Your task to perform on an android device: Go to display settings Image 0: 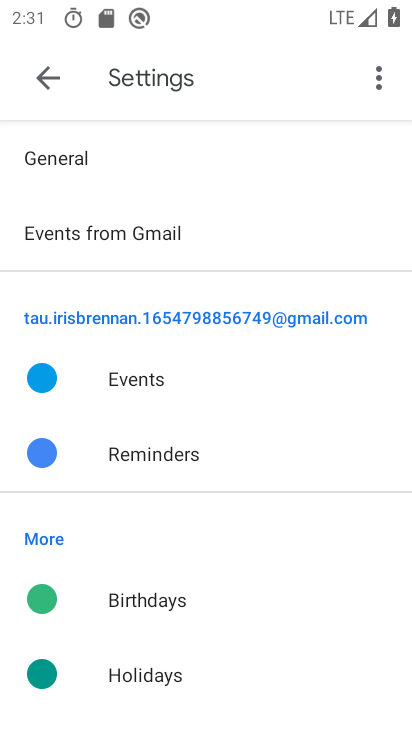
Step 0: press home button
Your task to perform on an android device: Go to display settings Image 1: 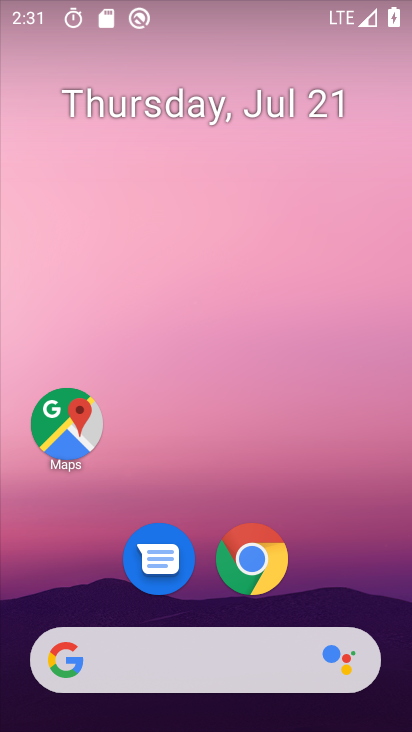
Step 1: drag from (356, 507) to (355, 120)
Your task to perform on an android device: Go to display settings Image 2: 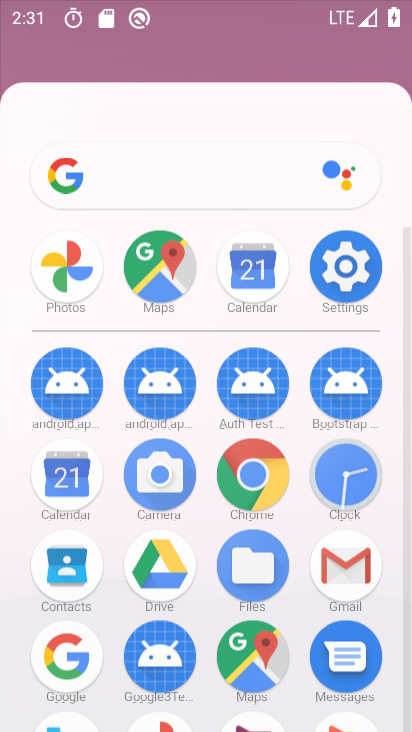
Step 2: drag from (334, 320) to (334, 91)
Your task to perform on an android device: Go to display settings Image 3: 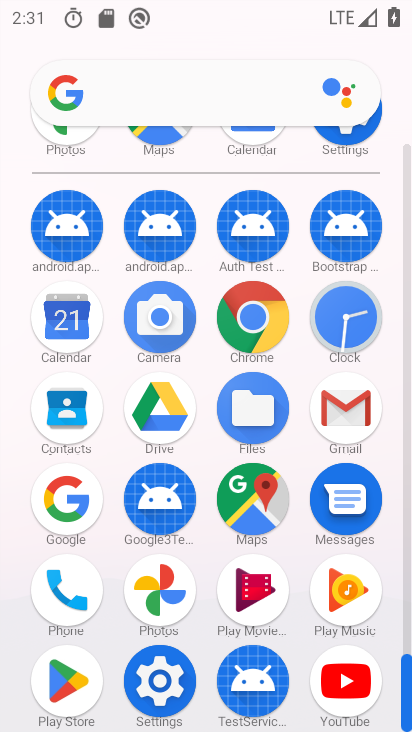
Step 3: click (163, 654)
Your task to perform on an android device: Go to display settings Image 4: 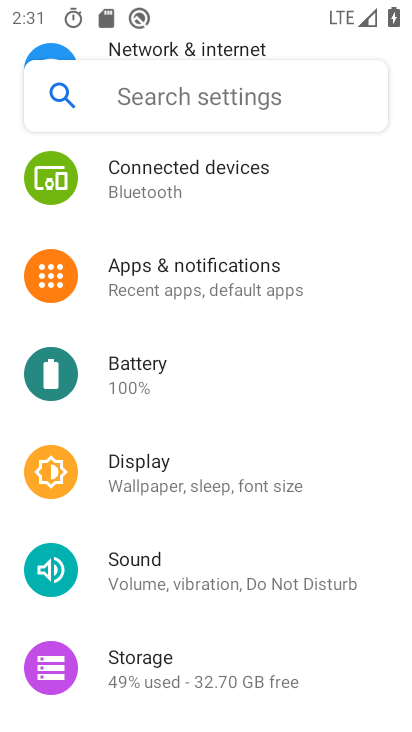
Step 4: drag from (346, 461) to (347, 368)
Your task to perform on an android device: Go to display settings Image 5: 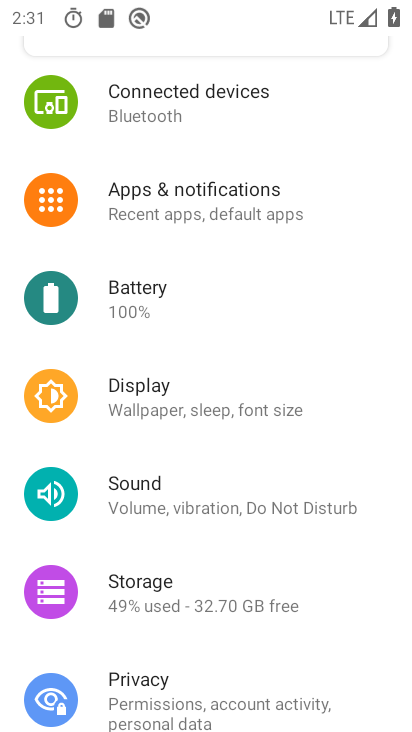
Step 5: drag from (346, 459) to (345, 349)
Your task to perform on an android device: Go to display settings Image 6: 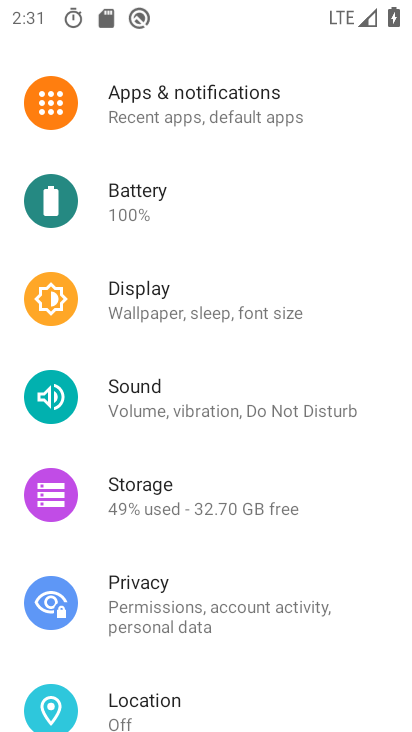
Step 6: drag from (334, 518) to (334, 391)
Your task to perform on an android device: Go to display settings Image 7: 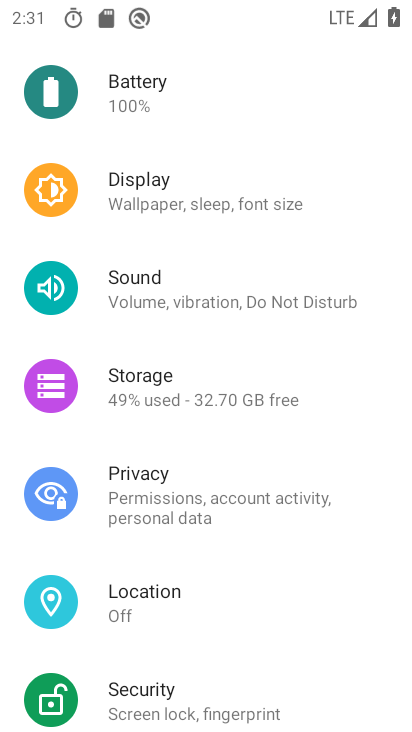
Step 7: drag from (343, 521) to (345, 373)
Your task to perform on an android device: Go to display settings Image 8: 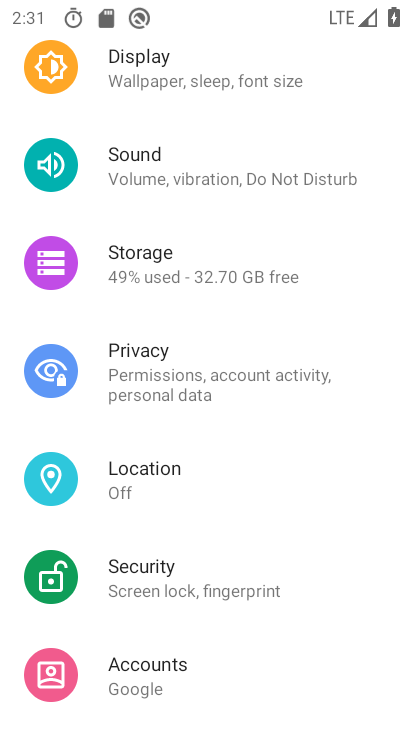
Step 8: drag from (346, 470) to (352, 308)
Your task to perform on an android device: Go to display settings Image 9: 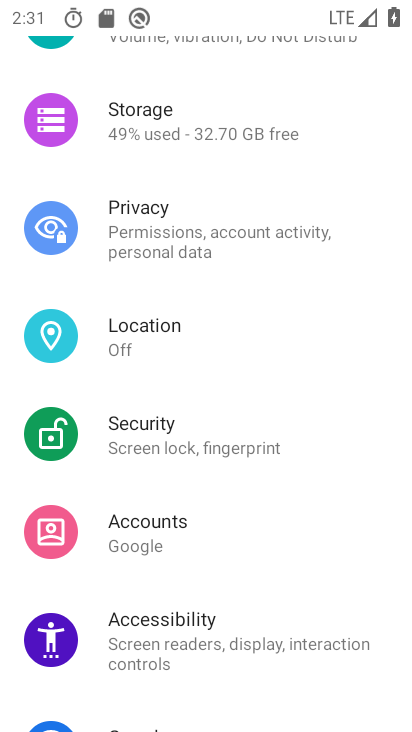
Step 9: drag from (356, 463) to (344, 296)
Your task to perform on an android device: Go to display settings Image 10: 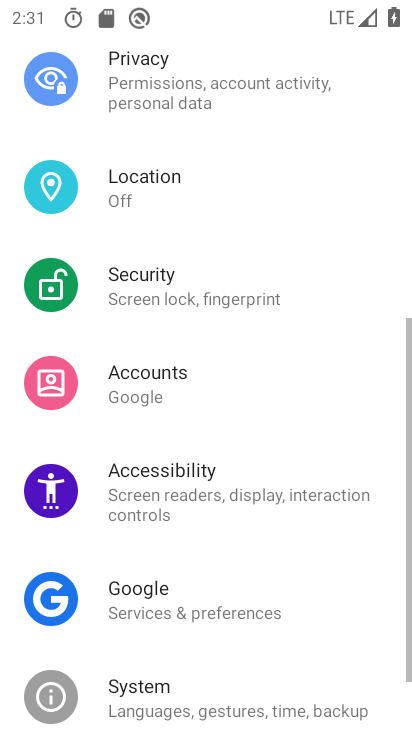
Step 10: drag from (341, 285) to (339, 376)
Your task to perform on an android device: Go to display settings Image 11: 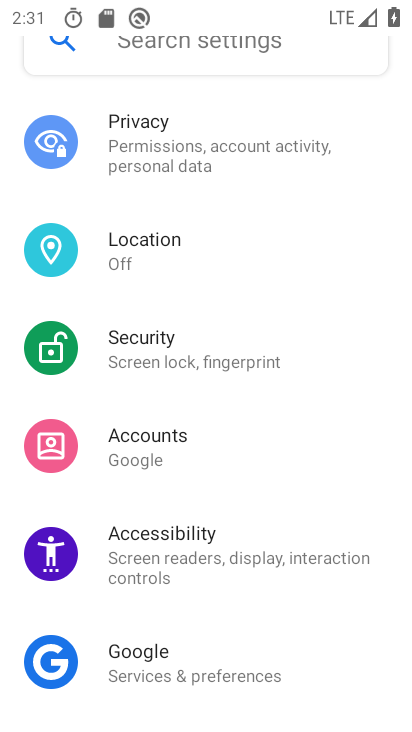
Step 11: drag from (334, 268) to (334, 355)
Your task to perform on an android device: Go to display settings Image 12: 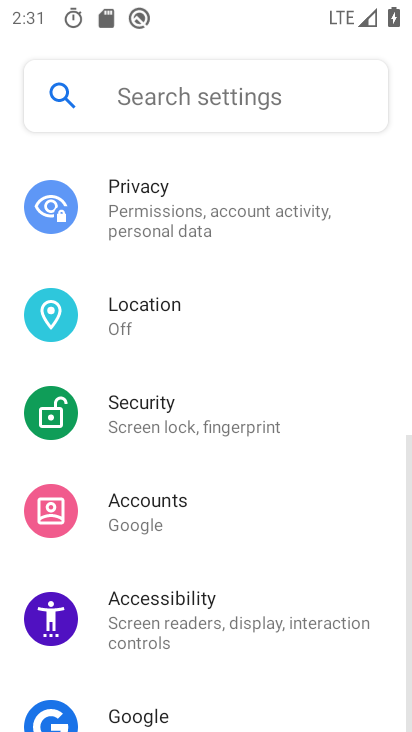
Step 12: drag from (326, 265) to (327, 364)
Your task to perform on an android device: Go to display settings Image 13: 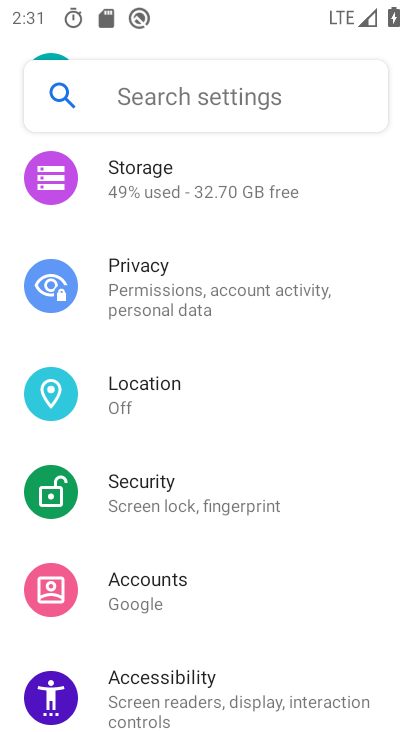
Step 13: drag from (348, 247) to (349, 376)
Your task to perform on an android device: Go to display settings Image 14: 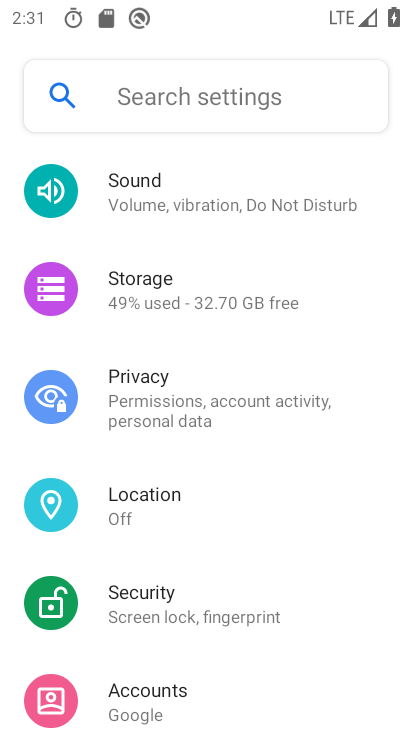
Step 14: drag from (349, 271) to (349, 384)
Your task to perform on an android device: Go to display settings Image 15: 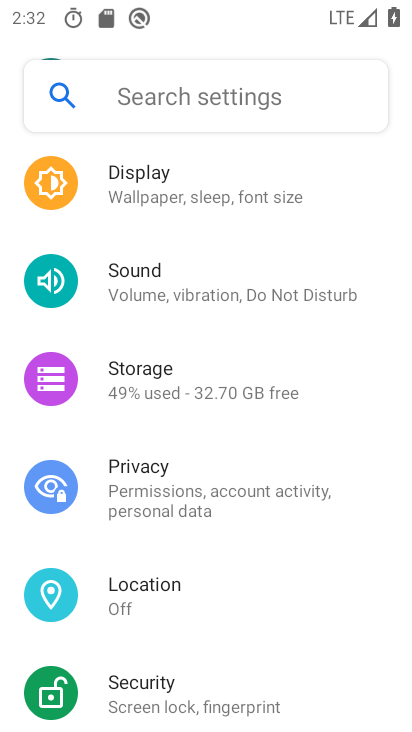
Step 15: drag from (352, 236) to (352, 392)
Your task to perform on an android device: Go to display settings Image 16: 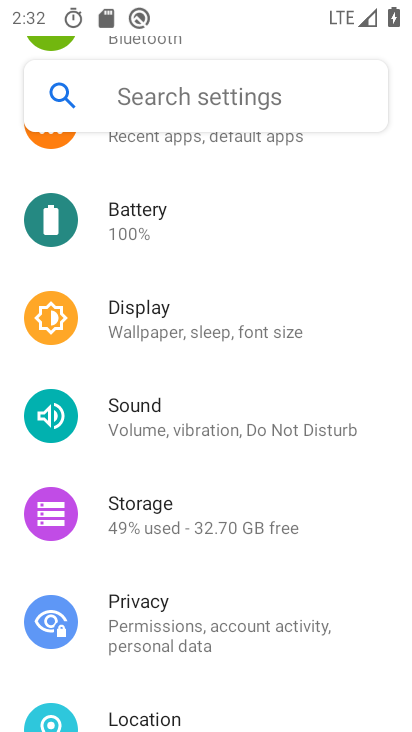
Step 16: click (330, 315)
Your task to perform on an android device: Go to display settings Image 17: 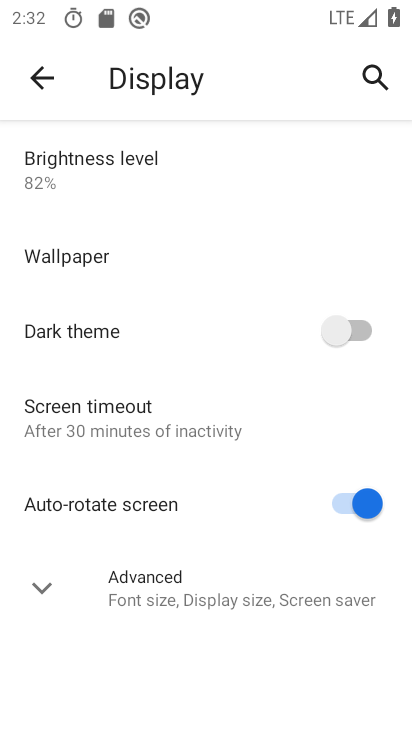
Step 17: click (264, 589)
Your task to perform on an android device: Go to display settings Image 18: 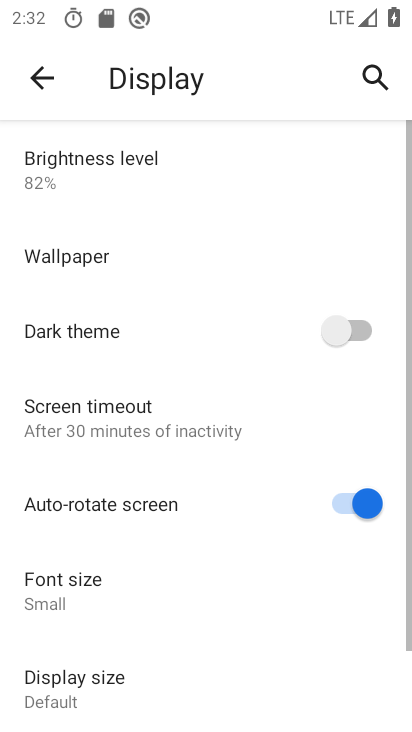
Step 18: task complete